Your task to perform on an android device: see creations saved in the google photos Image 0: 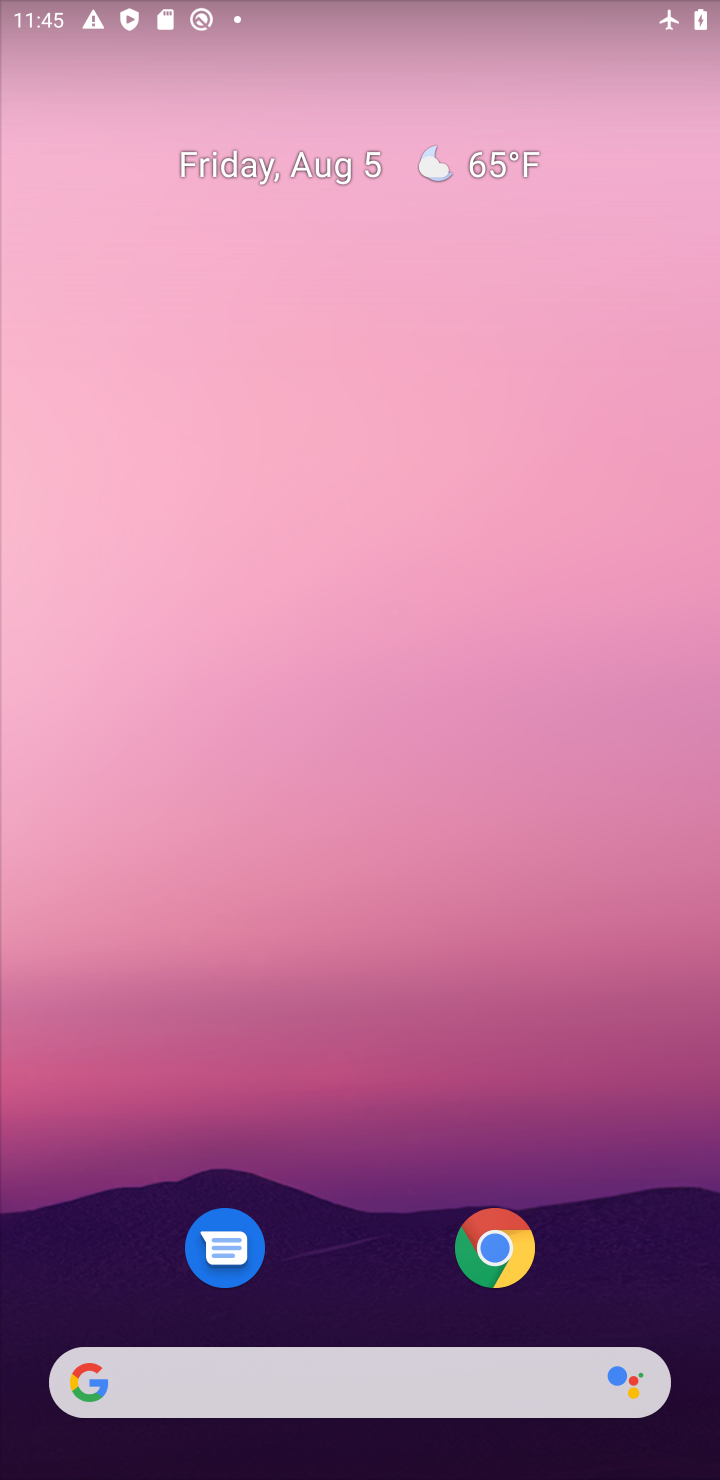
Step 0: press home button
Your task to perform on an android device: see creations saved in the google photos Image 1: 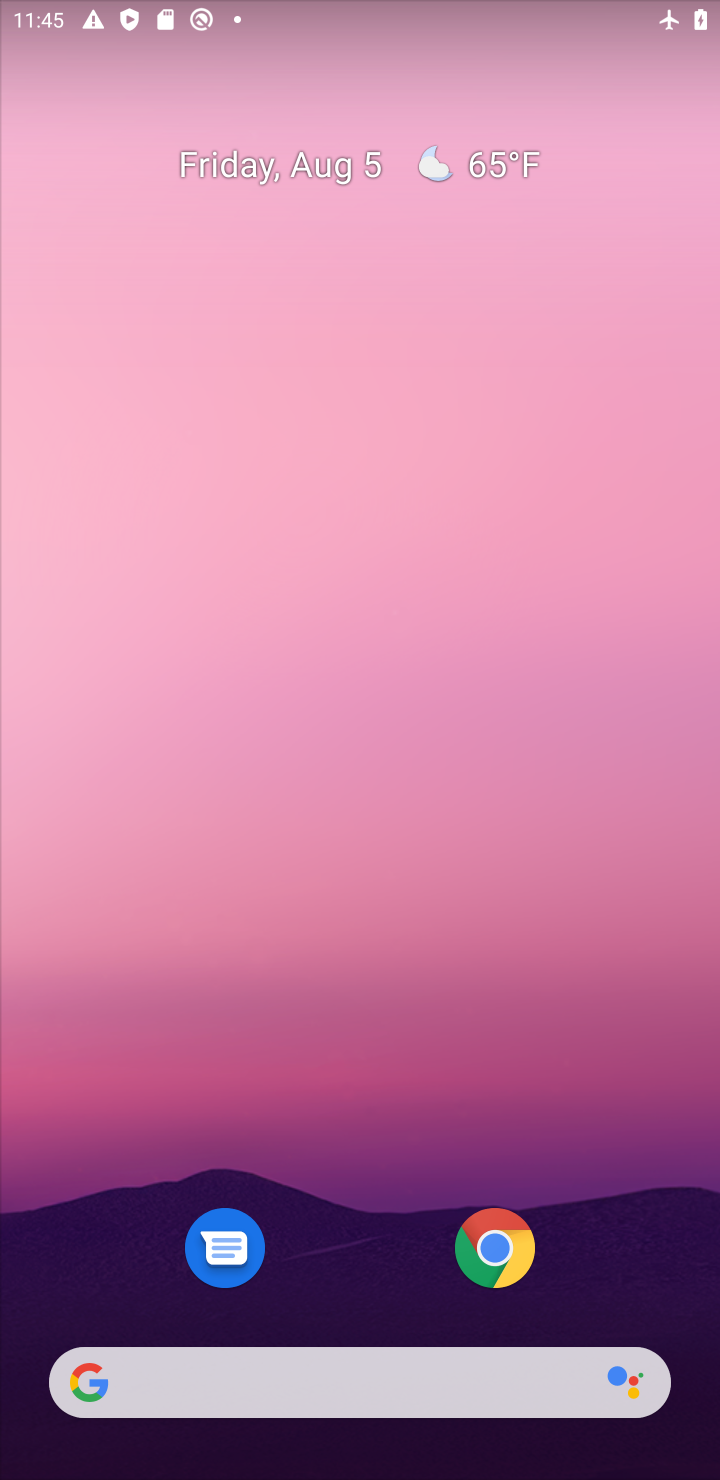
Step 1: drag from (399, 1304) to (416, 178)
Your task to perform on an android device: see creations saved in the google photos Image 2: 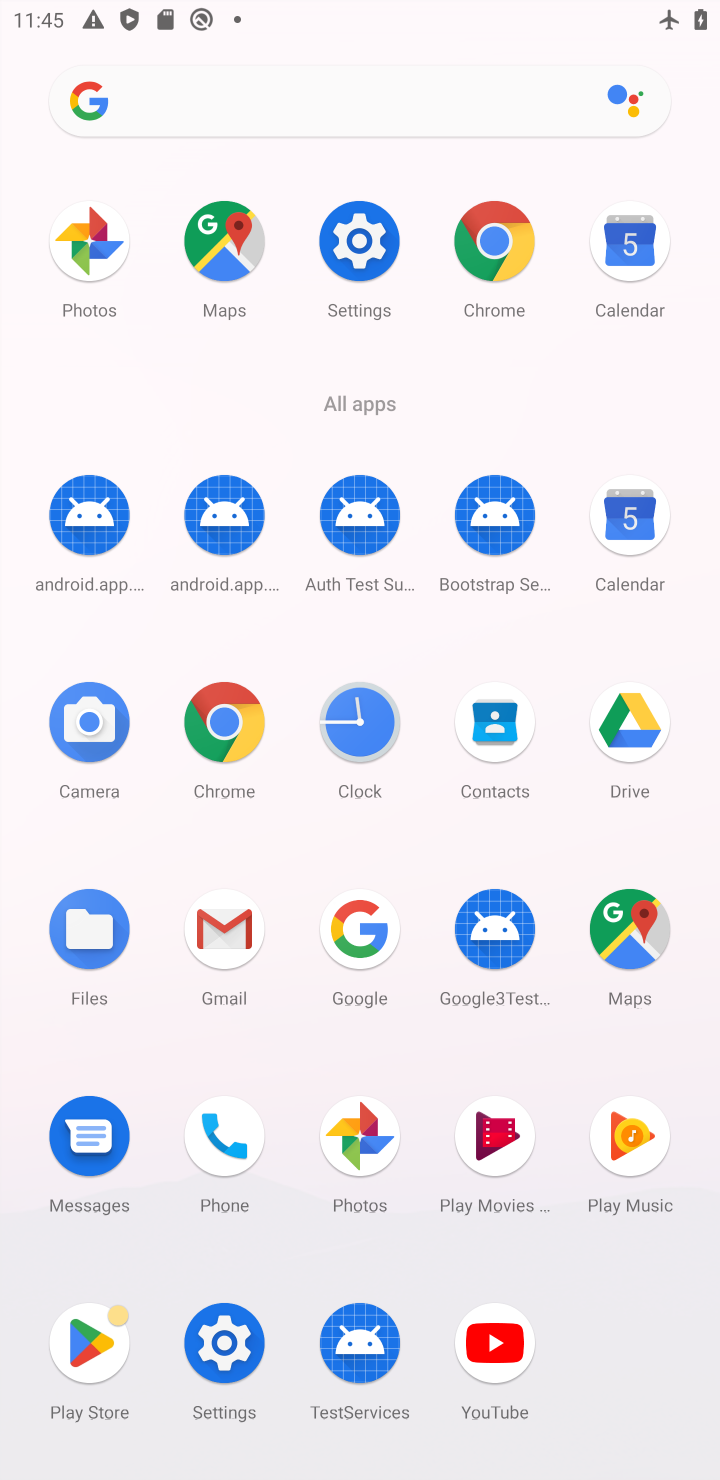
Step 2: click (354, 1122)
Your task to perform on an android device: see creations saved in the google photos Image 3: 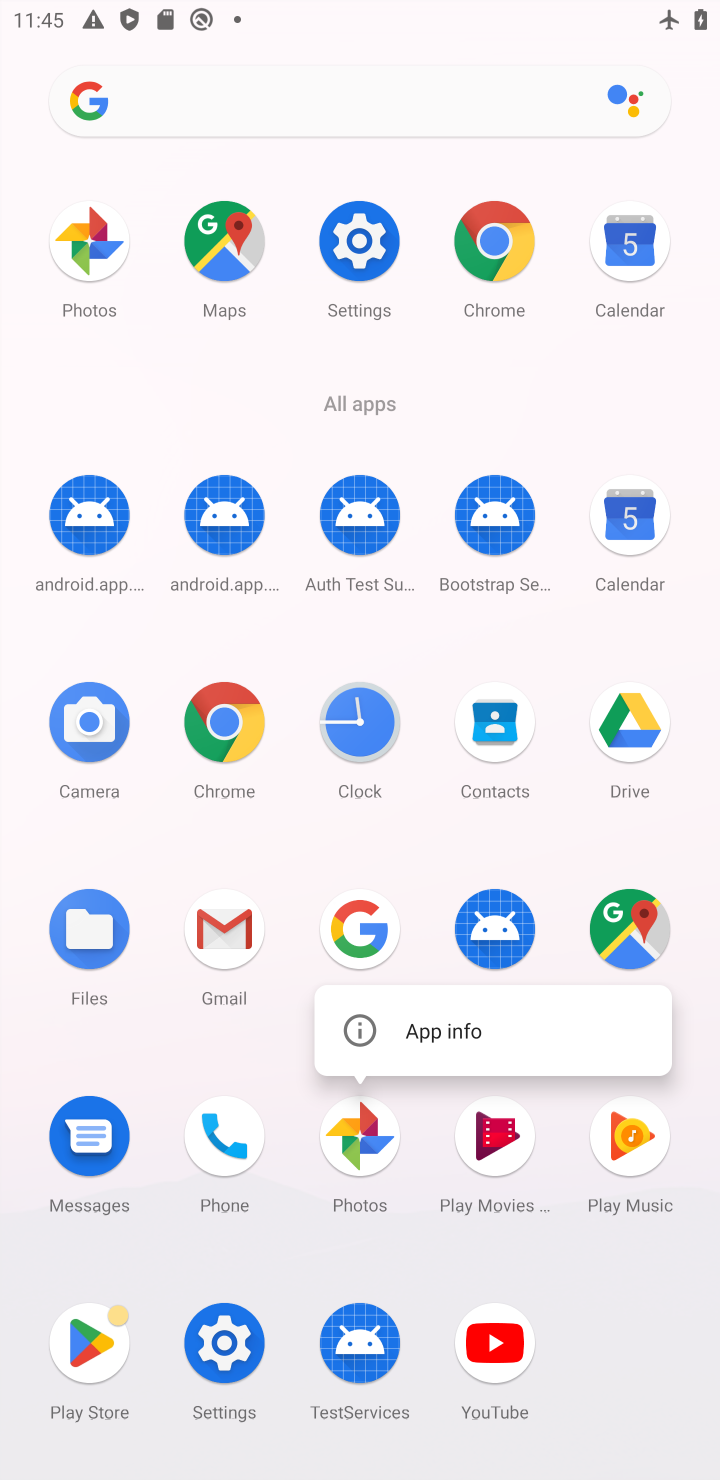
Step 3: click (360, 1123)
Your task to perform on an android device: see creations saved in the google photos Image 4: 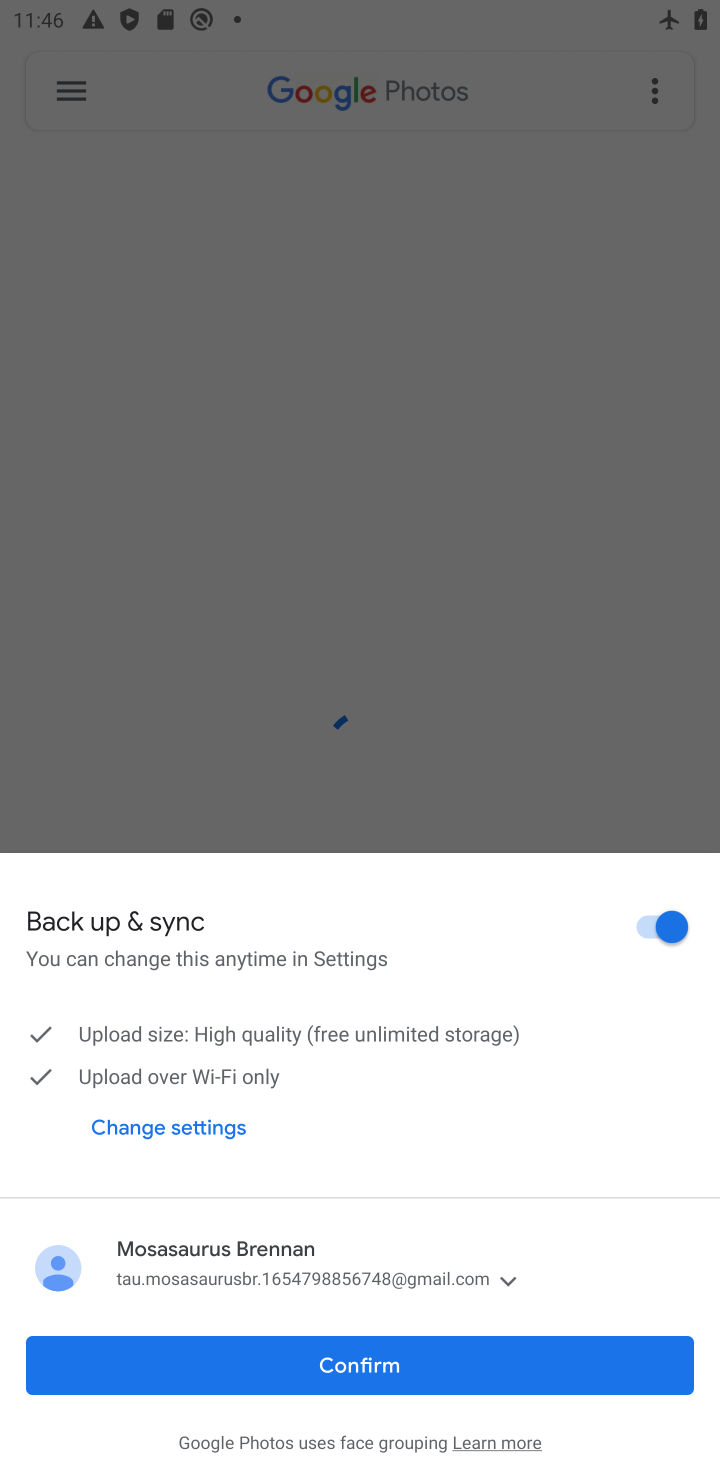
Step 4: click (361, 1367)
Your task to perform on an android device: see creations saved in the google photos Image 5: 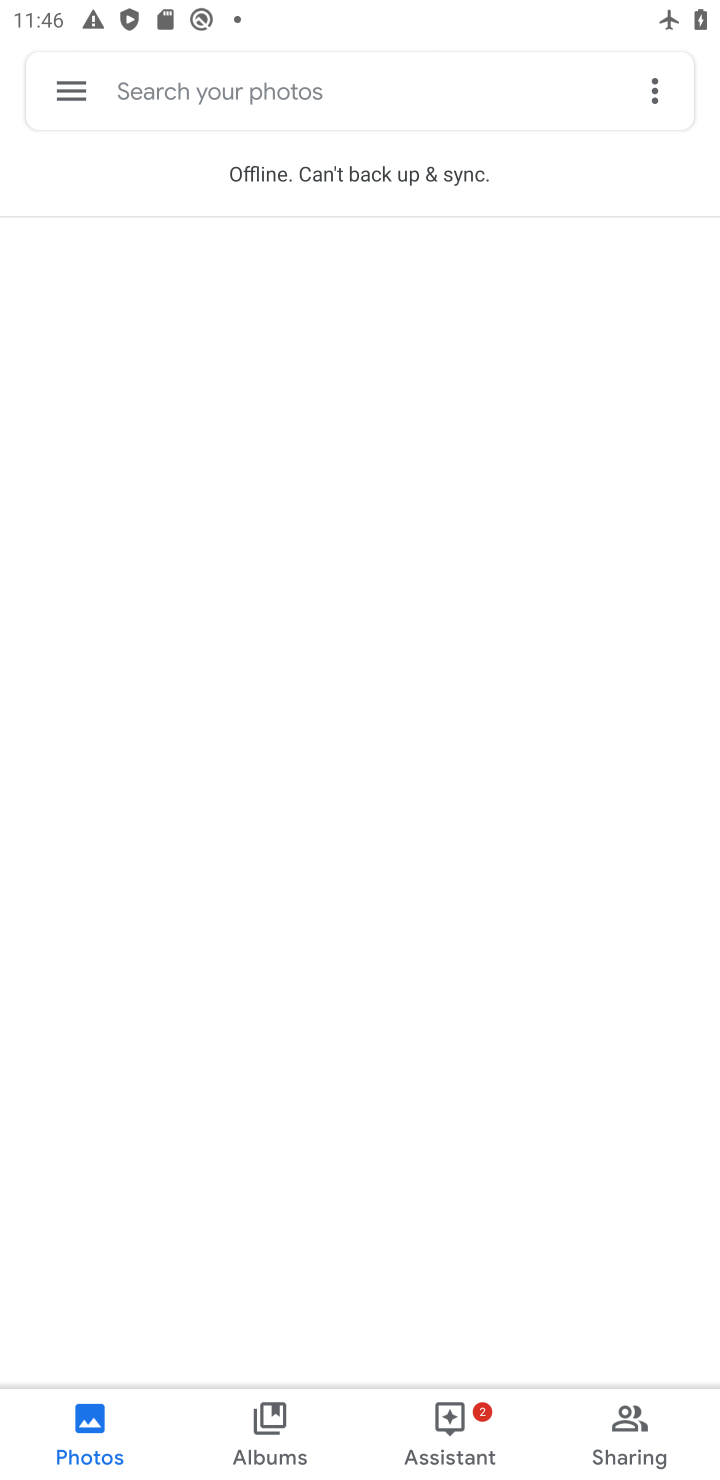
Step 5: click (68, 86)
Your task to perform on an android device: see creations saved in the google photos Image 6: 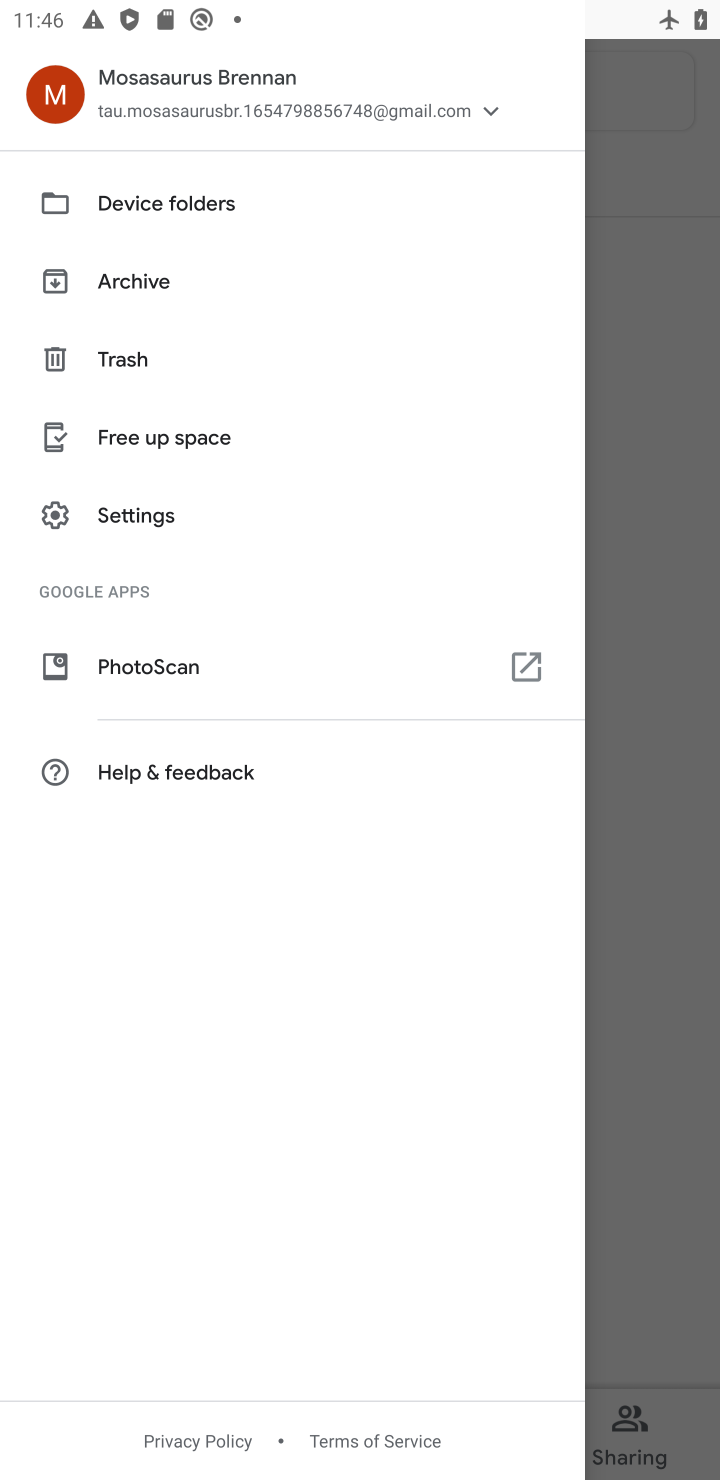
Step 6: click (686, 790)
Your task to perform on an android device: see creations saved in the google photos Image 7: 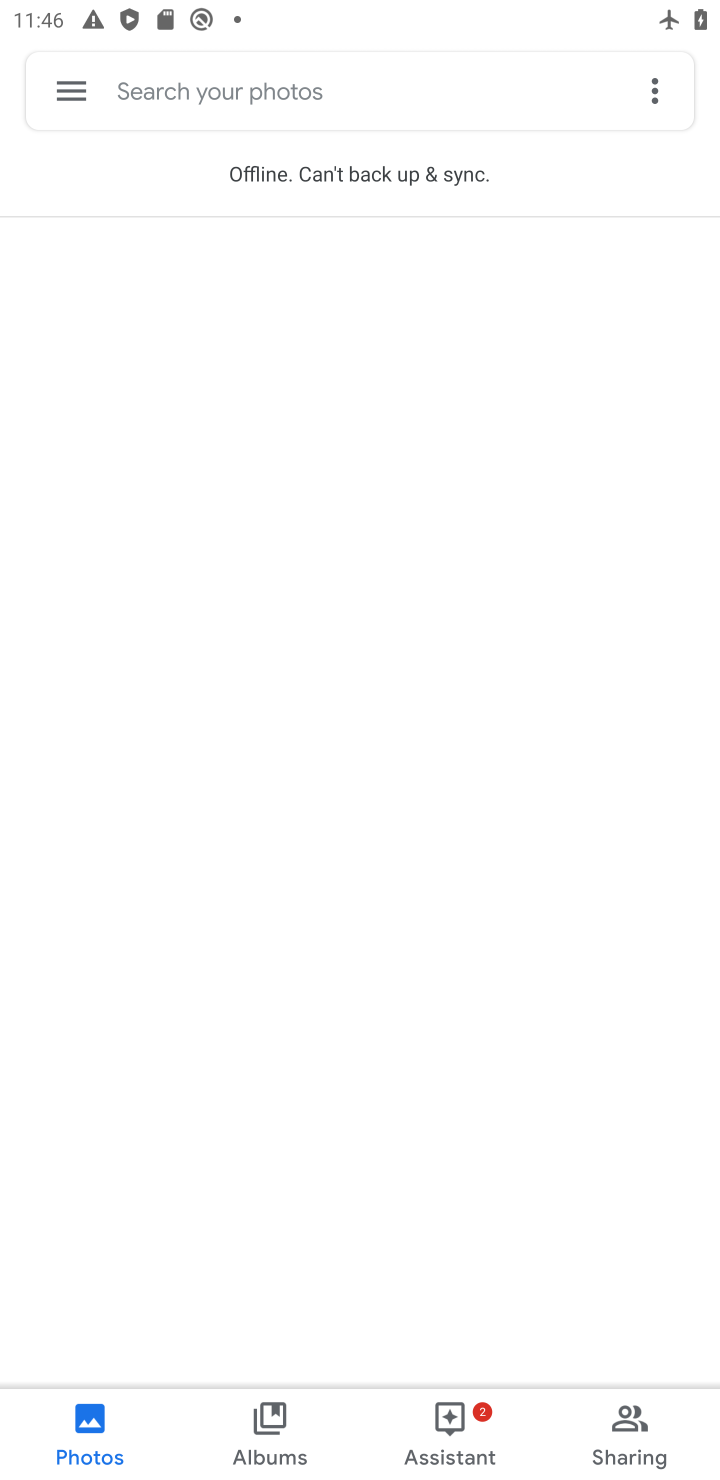
Step 7: click (187, 97)
Your task to perform on an android device: see creations saved in the google photos Image 8: 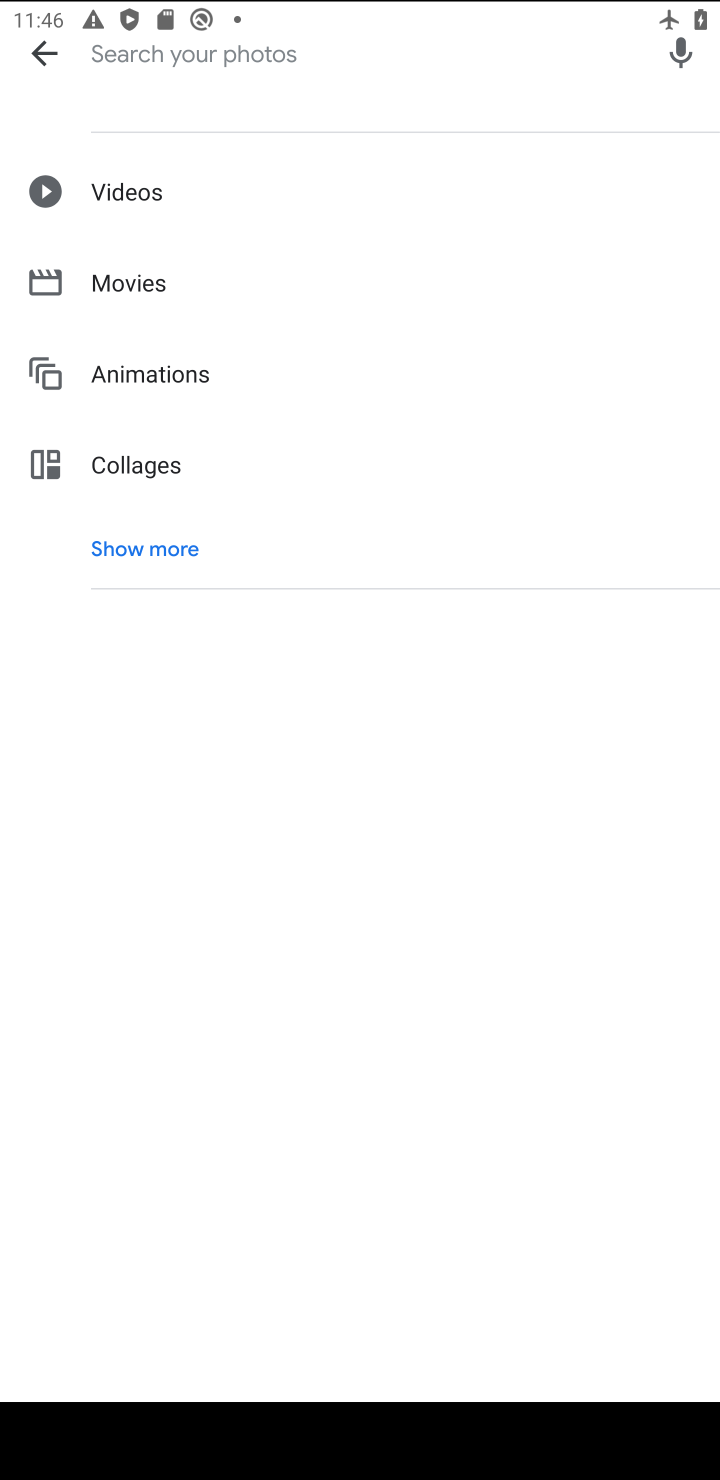
Step 8: click (141, 538)
Your task to perform on an android device: see creations saved in the google photos Image 9: 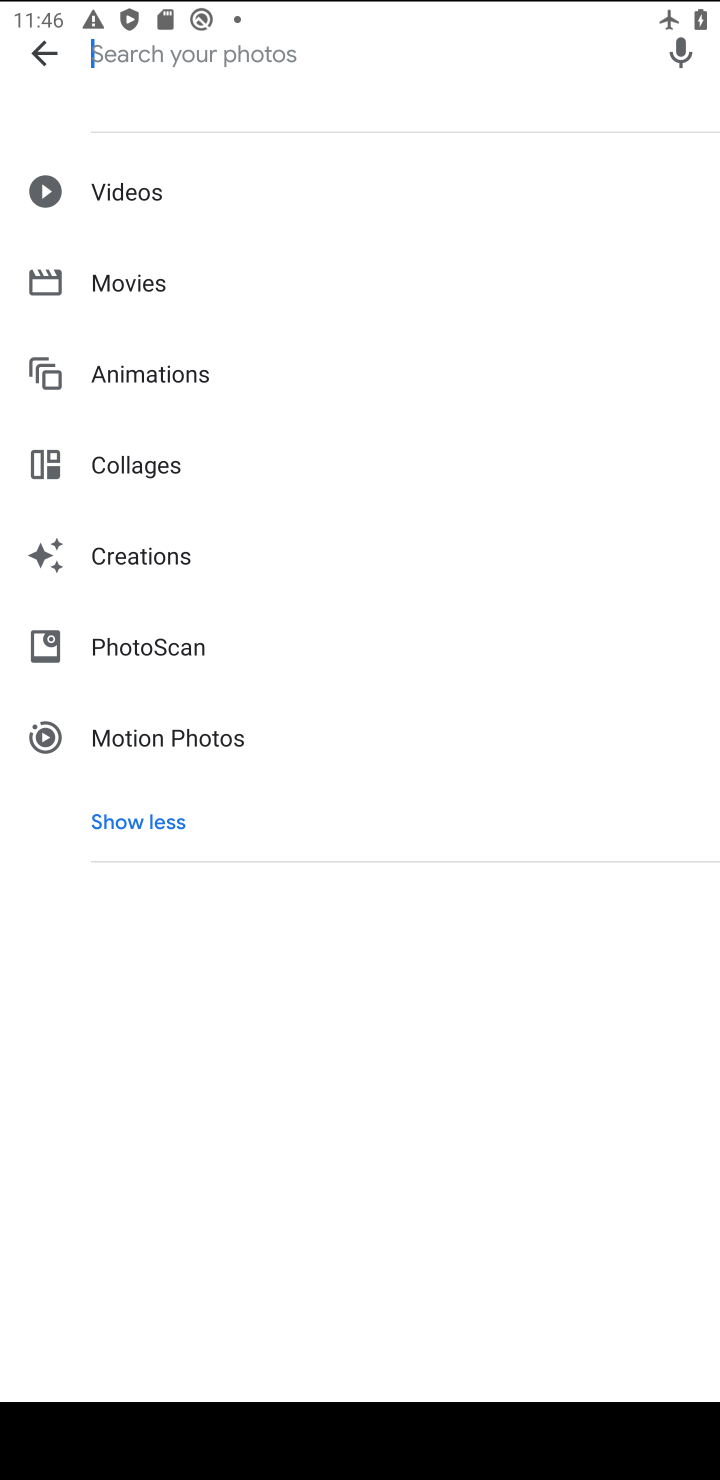
Step 9: click (202, 545)
Your task to perform on an android device: see creations saved in the google photos Image 10: 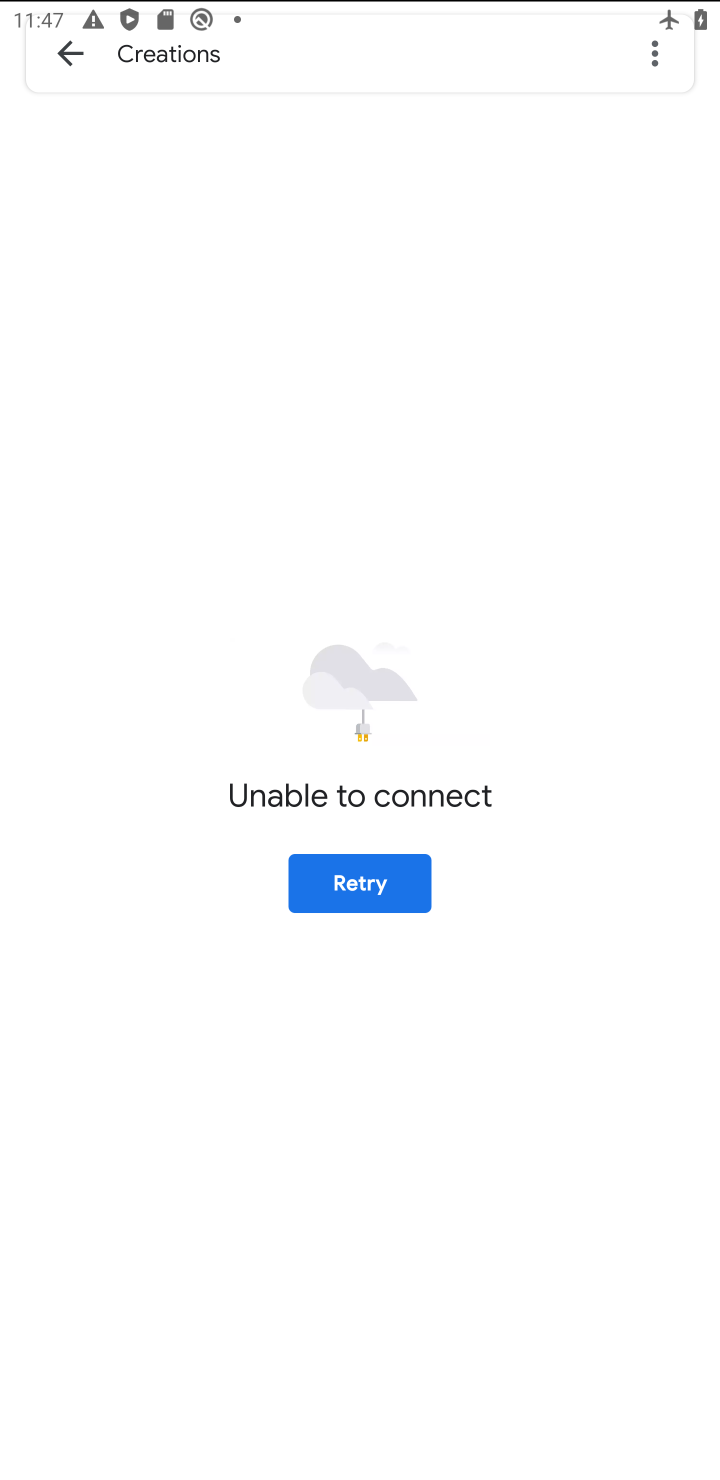
Step 10: click (365, 886)
Your task to perform on an android device: see creations saved in the google photos Image 11: 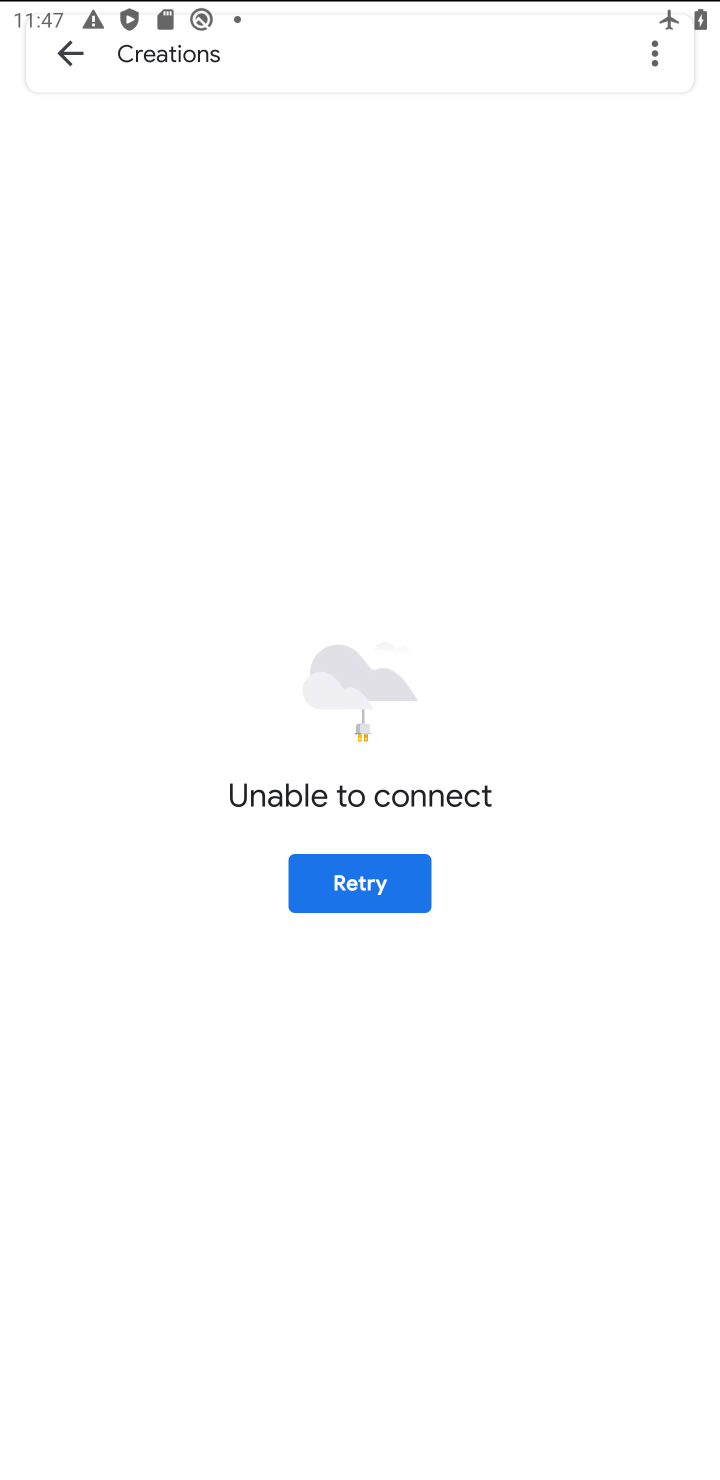
Step 11: task complete